Your task to perform on an android device: add a contact Image 0: 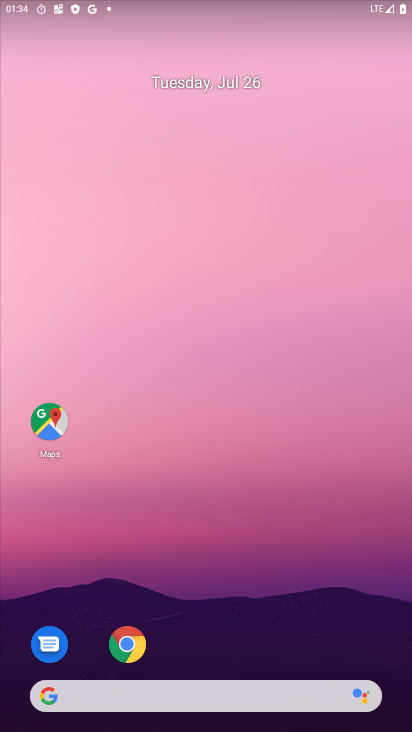
Step 0: drag from (259, 653) to (271, 86)
Your task to perform on an android device: add a contact Image 1: 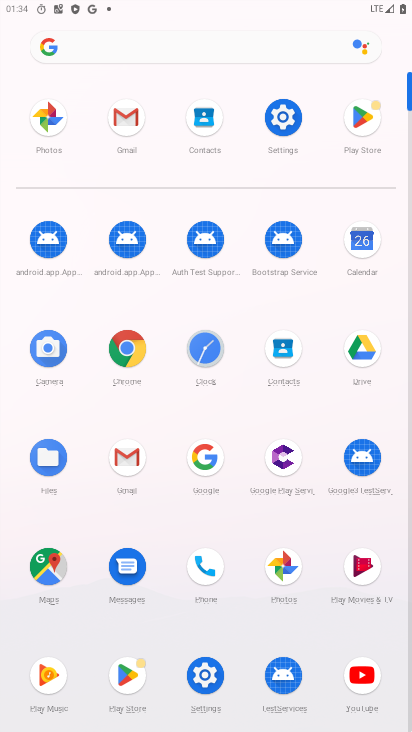
Step 1: click (282, 349)
Your task to perform on an android device: add a contact Image 2: 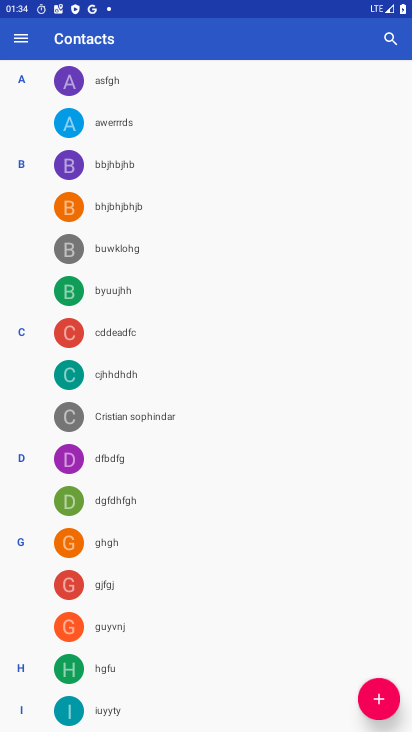
Step 2: click (378, 704)
Your task to perform on an android device: add a contact Image 3: 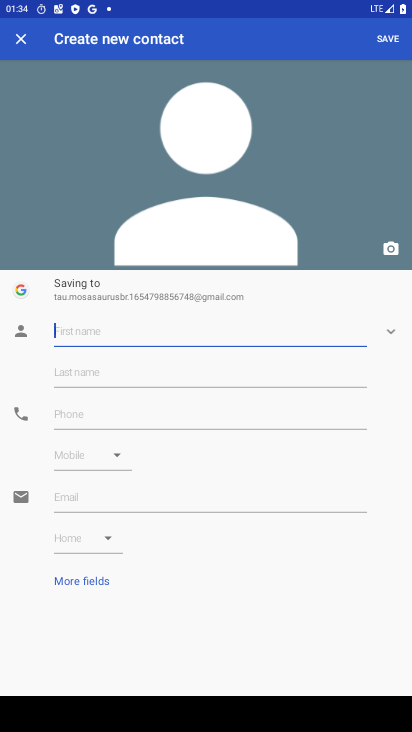
Step 3: click (74, 322)
Your task to perform on an android device: add a contact Image 4: 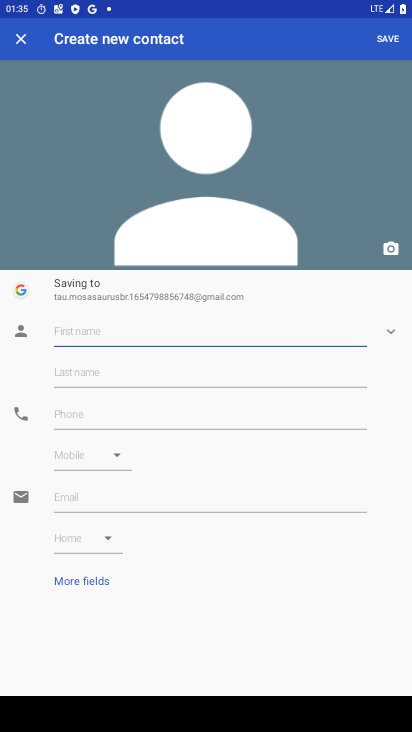
Step 4: type "iuyokp"
Your task to perform on an android device: add a contact Image 5: 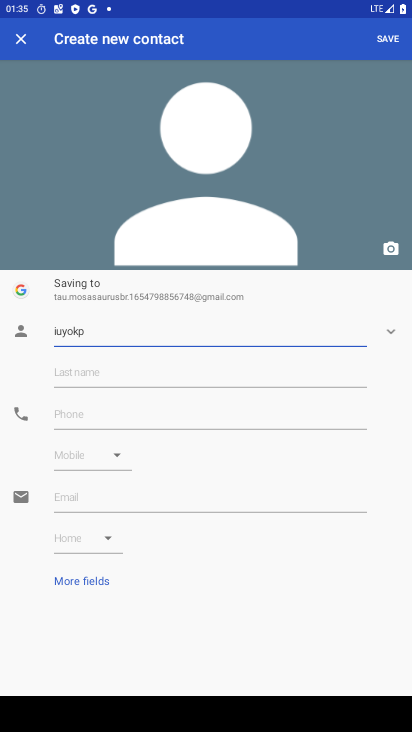
Step 5: click (99, 423)
Your task to perform on an android device: add a contact Image 6: 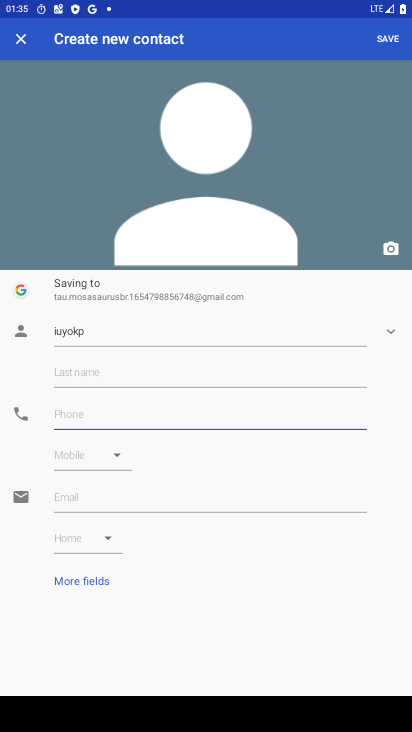
Step 6: type "987655443"
Your task to perform on an android device: add a contact Image 7: 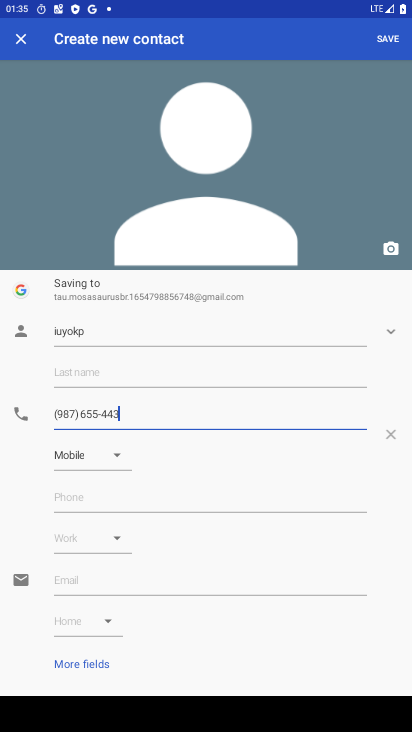
Step 7: click (394, 47)
Your task to perform on an android device: add a contact Image 8: 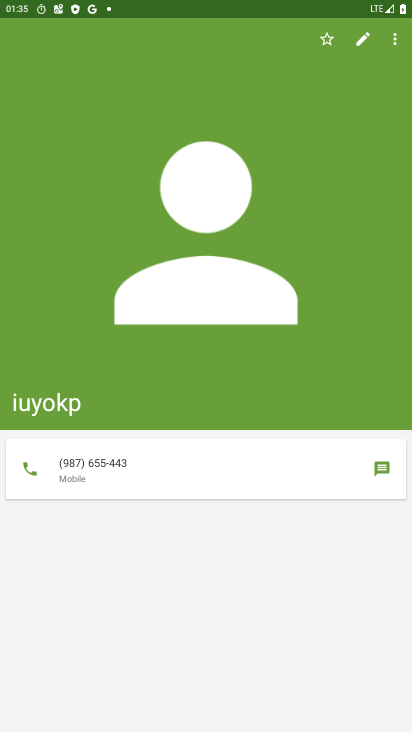
Step 8: task complete